Your task to perform on an android device: What is the news today? Image 0: 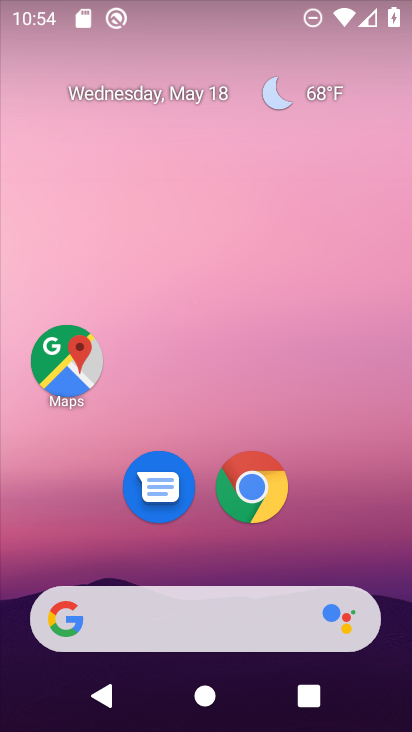
Step 0: drag from (356, 543) to (359, 210)
Your task to perform on an android device: What is the news today? Image 1: 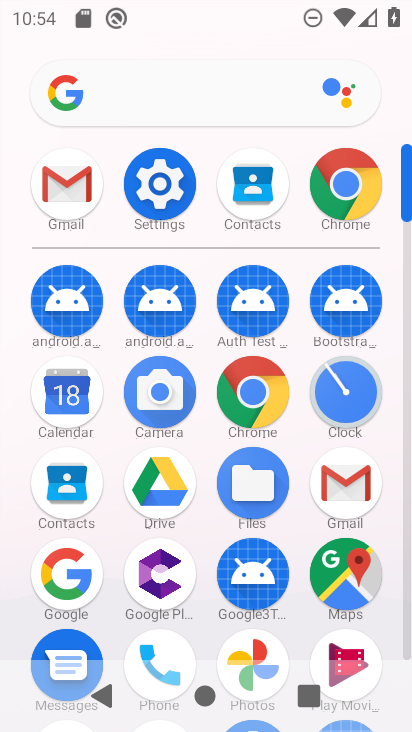
Step 1: click (270, 372)
Your task to perform on an android device: What is the news today? Image 2: 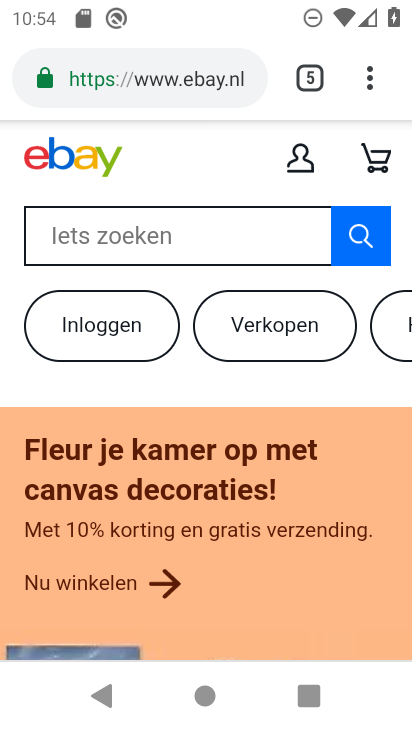
Step 2: click (151, 93)
Your task to perform on an android device: What is the news today? Image 3: 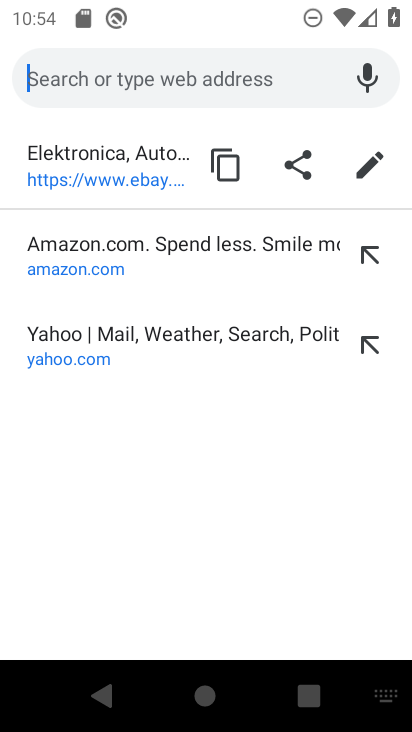
Step 3: type "what is the news today"
Your task to perform on an android device: What is the news today? Image 4: 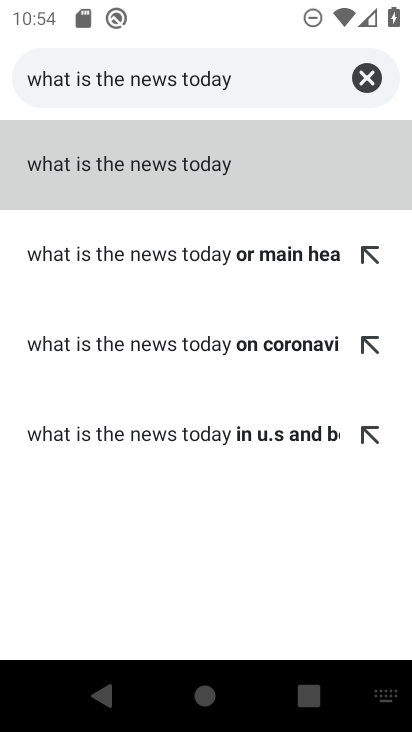
Step 4: click (200, 164)
Your task to perform on an android device: What is the news today? Image 5: 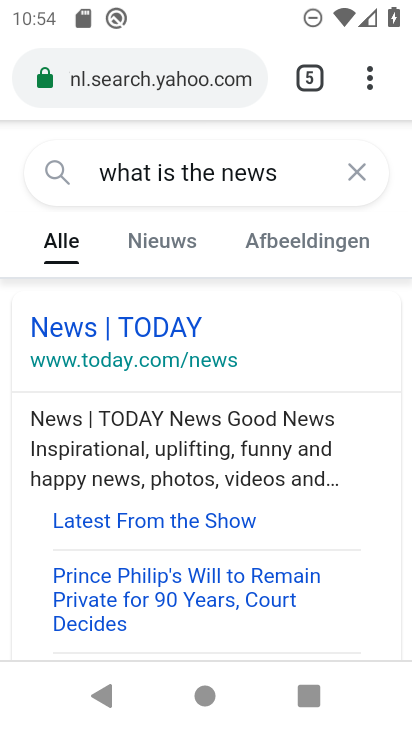
Step 5: task complete